Your task to perform on an android device: Search for Mexican restaurants on Maps Image 0: 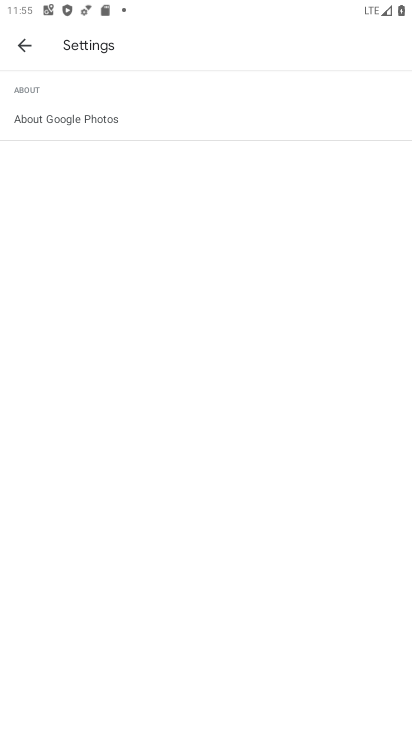
Step 0: press home button
Your task to perform on an android device: Search for Mexican restaurants on Maps Image 1: 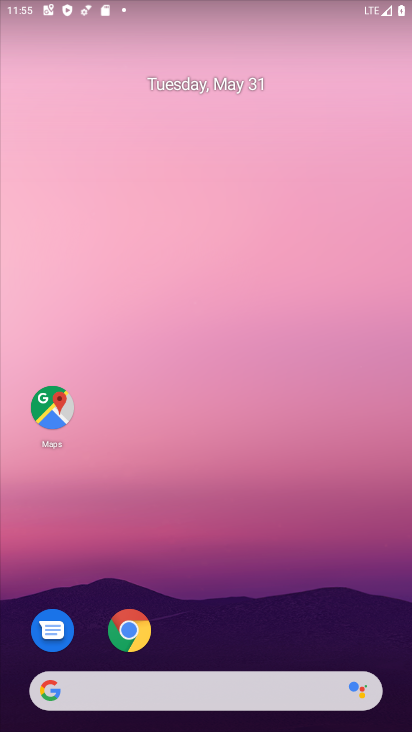
Step 1: click (44, 409)
Your task to perform on an android device: Search for Mexican restaurants on Maps Image 2: 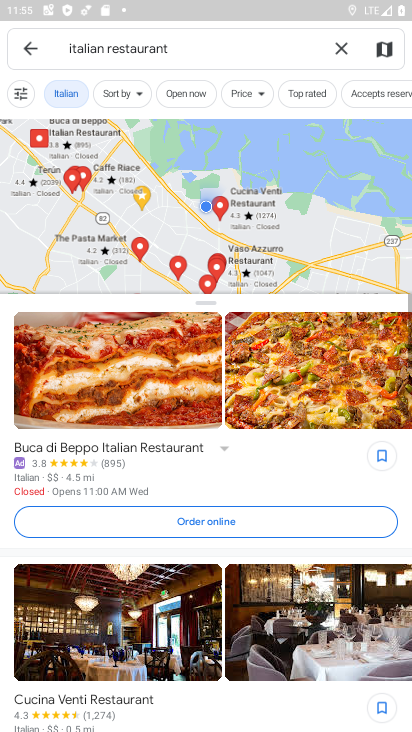
Step 2: click (346, 46)
Your task to perform on an android device: Search for Mexican restaurants on Maps Image 3: 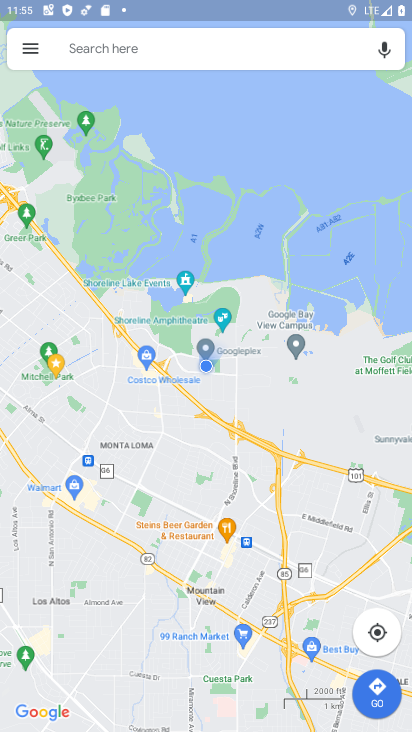
Step 3: click (159, 46)
Your task to perform on an android device: Search for Mexican restaurants on Maps Image 4: 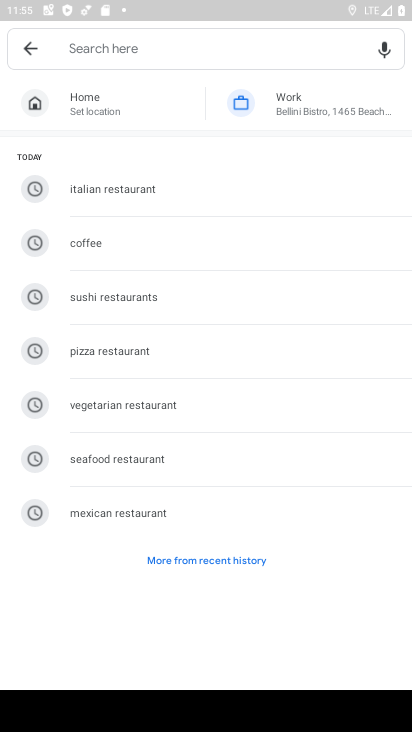
Step 4: click (88, 516)
Your task to perform on an android device: Search for Mexican restaurants on Maps Image 5: 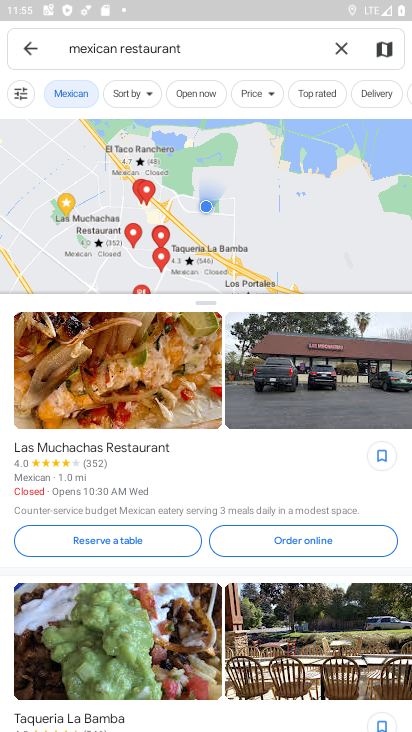
Step 5: task complete